Your task to perform on an android device: Search for vegetarian restaurants on Maps Image 0: 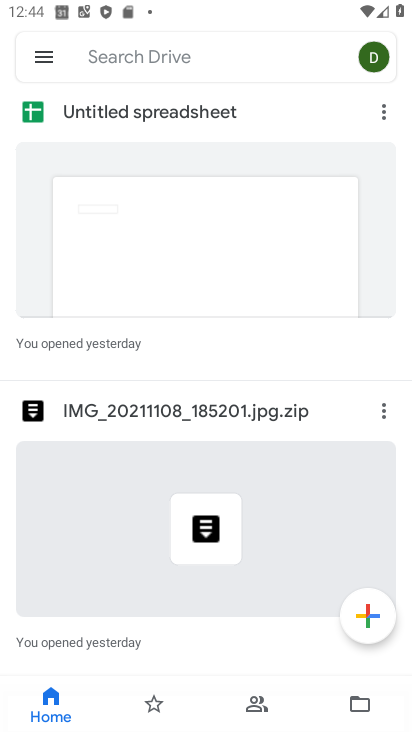
Step 0: press home button
Your task to perform on an android device: Search for vegetarian restaurants on Maps Image 1: 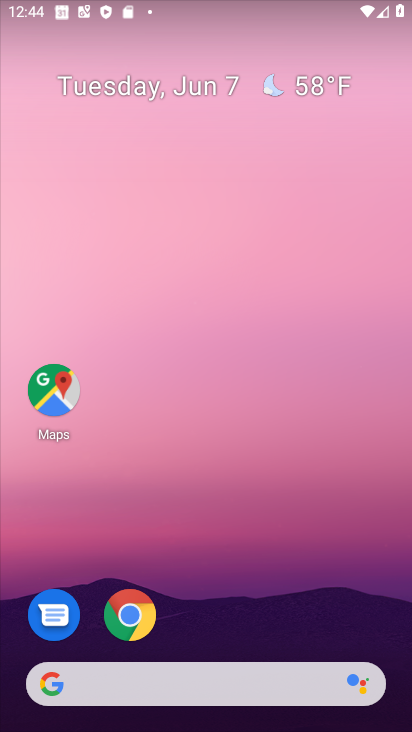
Step 1: click (54, 391)
Your task to perform on an android device: Search for vegetarian restaurants on Maps Image 2: 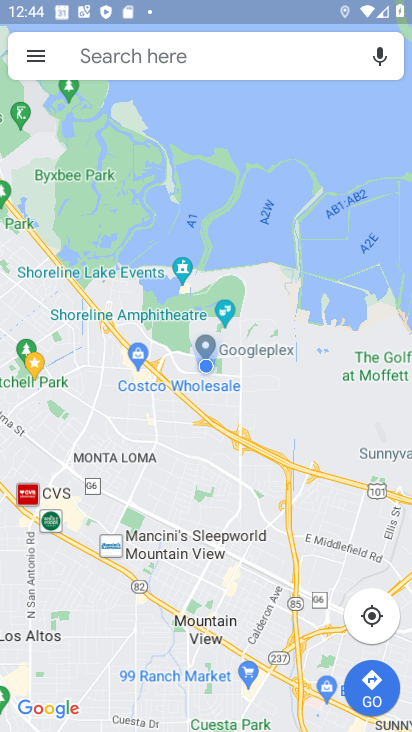
Step 2: click (216, 46)
Your task to perform on an android device: Search for vegetarian restaurants on Maps Image 3: 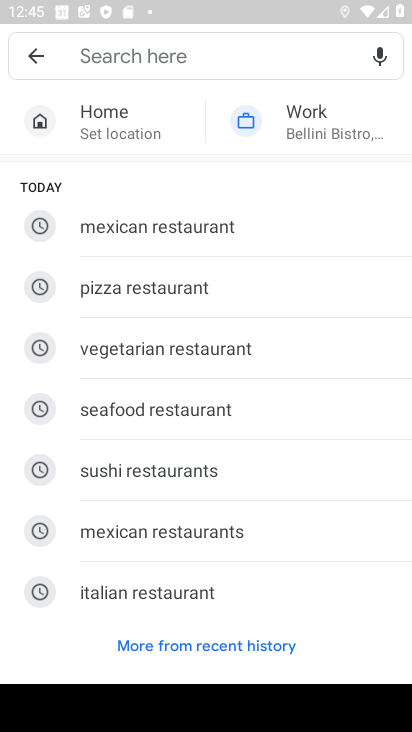
Step 3: type "vegetarian restaurants"
Your task to perform on an android device: Search for vegetarian restaurants on Maps Image 4: 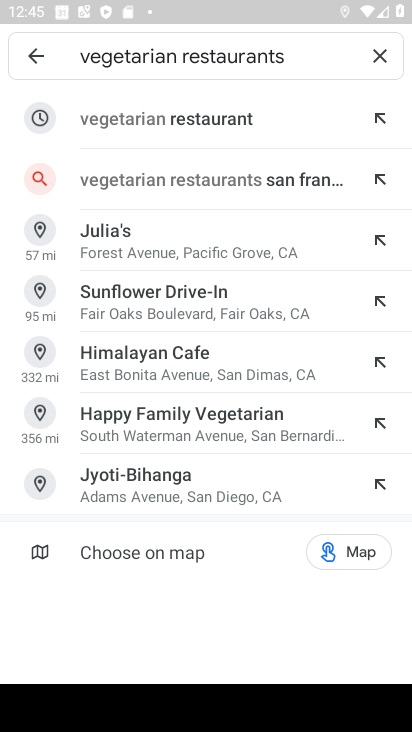
Step 4: click (193, 120)
Your task to perform on an android device: Search for vegetarian restaurants on Maps Image 5: 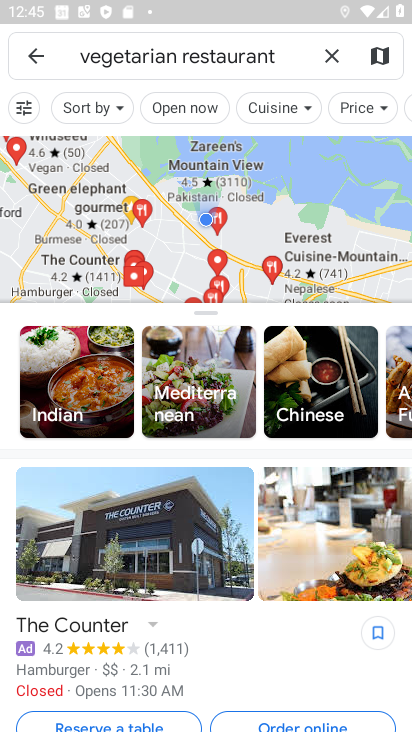
Step 5: task complete